Your task to perform on an android device: all mails in gmail Image 0: 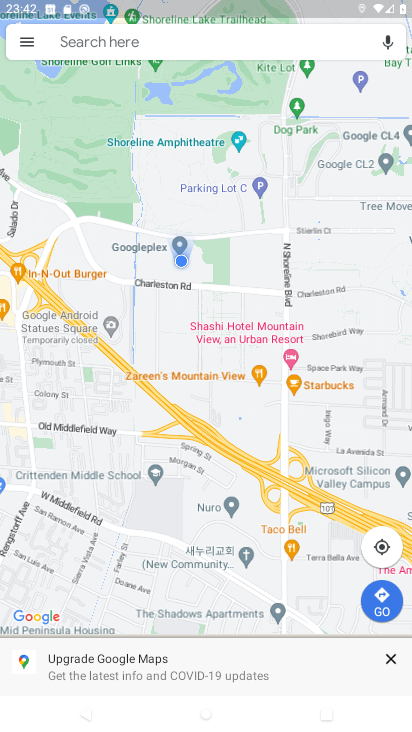
Step 0: press home button
Your task to perform on an android device: all mails in gmail Image 1: 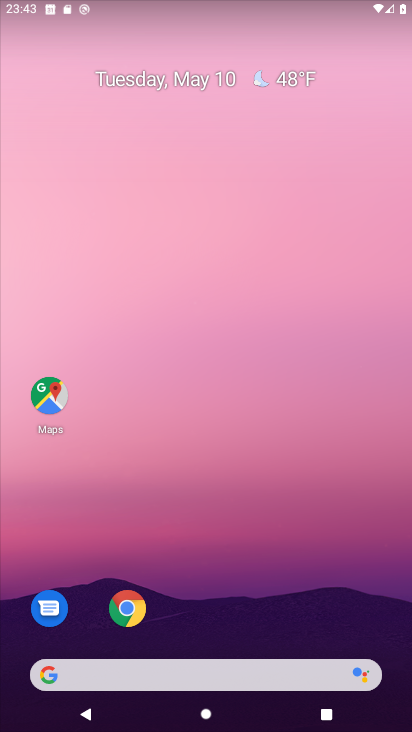
Step 1: drag from (249, 565) to (119, 159)
Your task to perform on an android device: all mails in gmail Image 2: 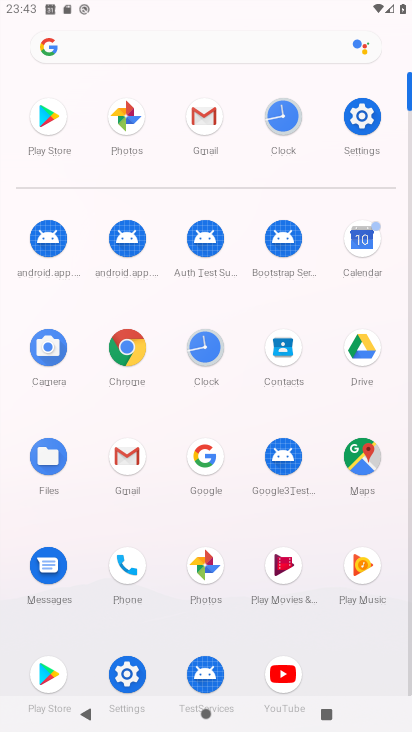
Step 2: click (204, 131)
Your task to perform on an android device: all mails in gmail Image 3: 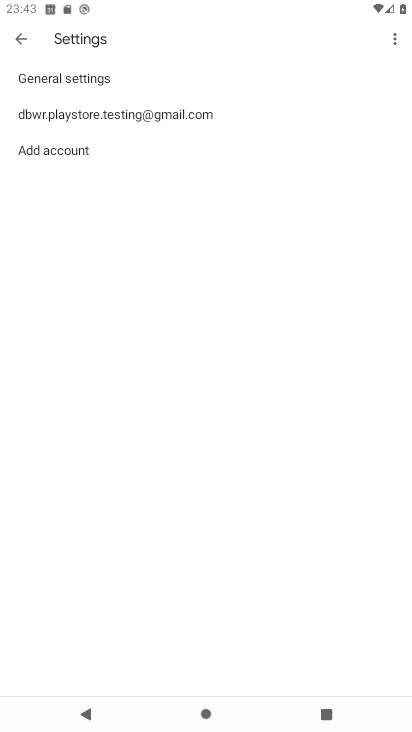
Step 3: press back button
Your task to perform on an android device: all mails in gmail Image 4: 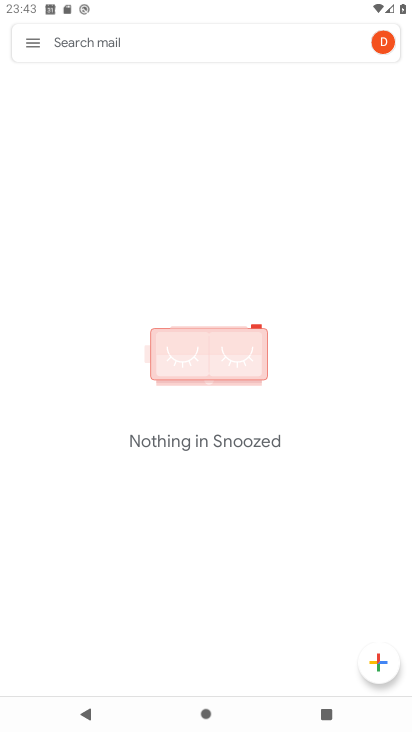
Step 4: click (34, 45)
Your task to perform on an android device: all mails in gmail Image 5: 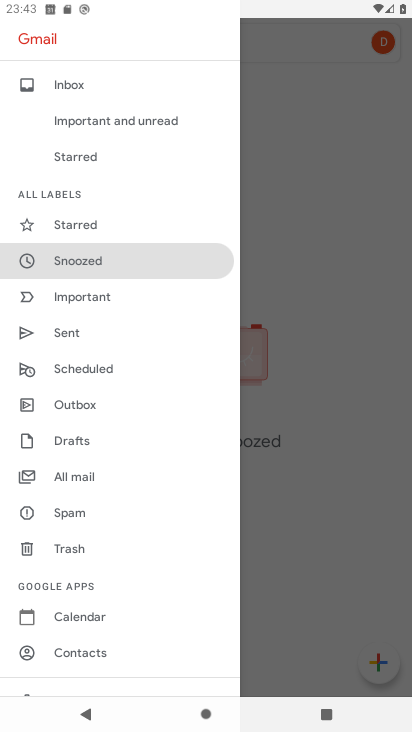
Step 5: click (70, 476)
Your task to perform on an android device: all mails in gmail Image 6: 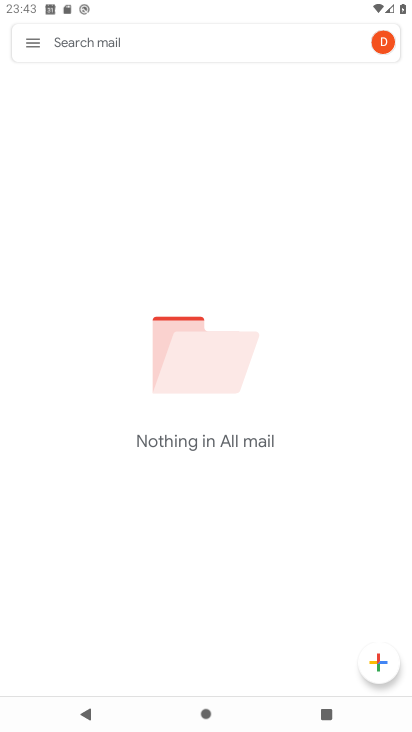
Step 6: task complete